Your task to perform on an android device: open a bookmark in the chrome app Image 0: 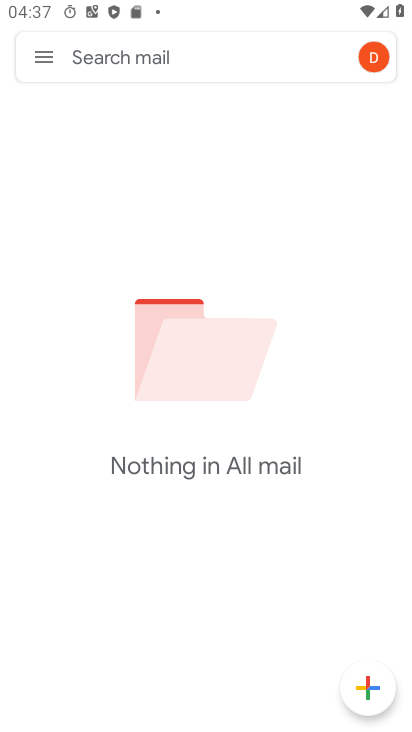
Step 0: press home button
Your task to perform on an android device: open a bookmark in the chrome app Image 1: 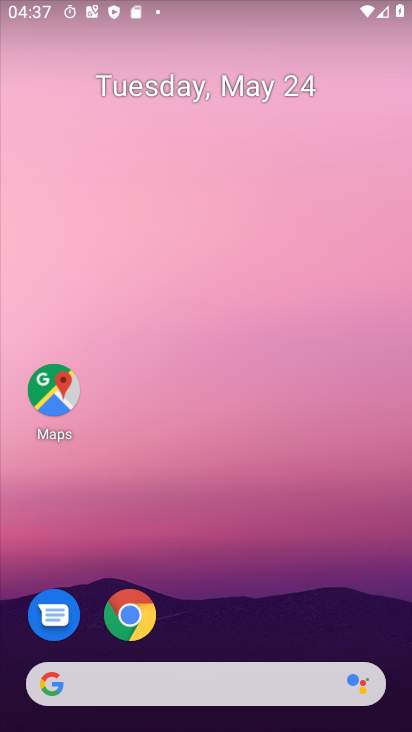
Step 1: click (124, 607)
Your task to perform on an android device: open a bookmark in the chrome app Image 2: 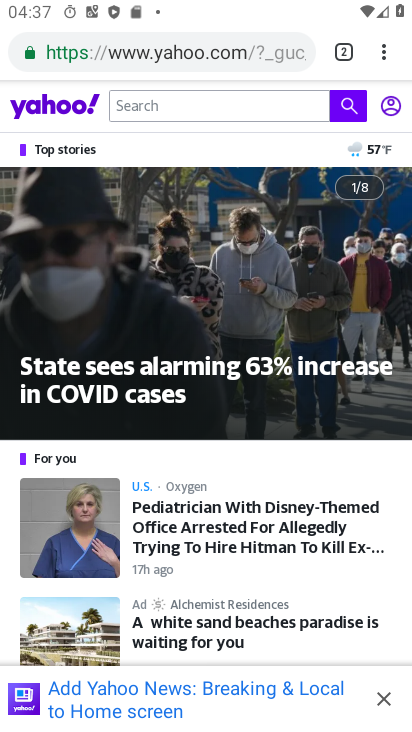
Step 2: drag from (382, 54) to (224, 202)
Your task to perform on an android device: open a bookmark in the chrome app Image 3: 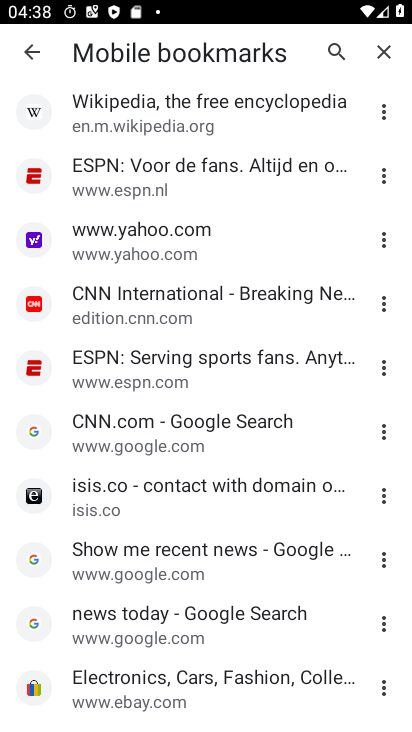
Step 3: click (134, 165)
Your task to perform on an android device: open a bookmark in the chrome app Image 4: 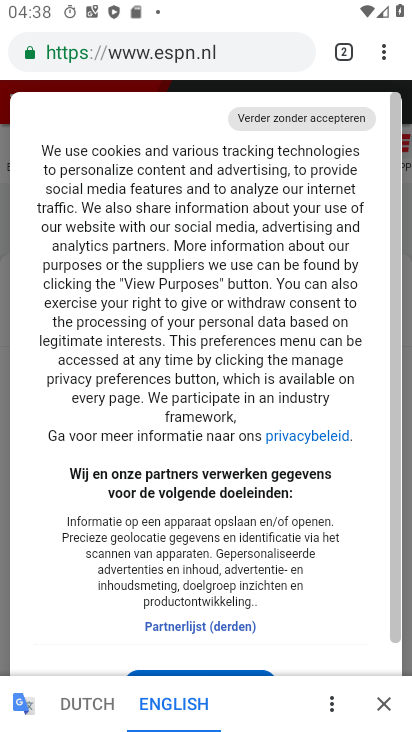
Step 4: task complete